Your task to perform on an android device: install app "Google Play Games" Image 0: 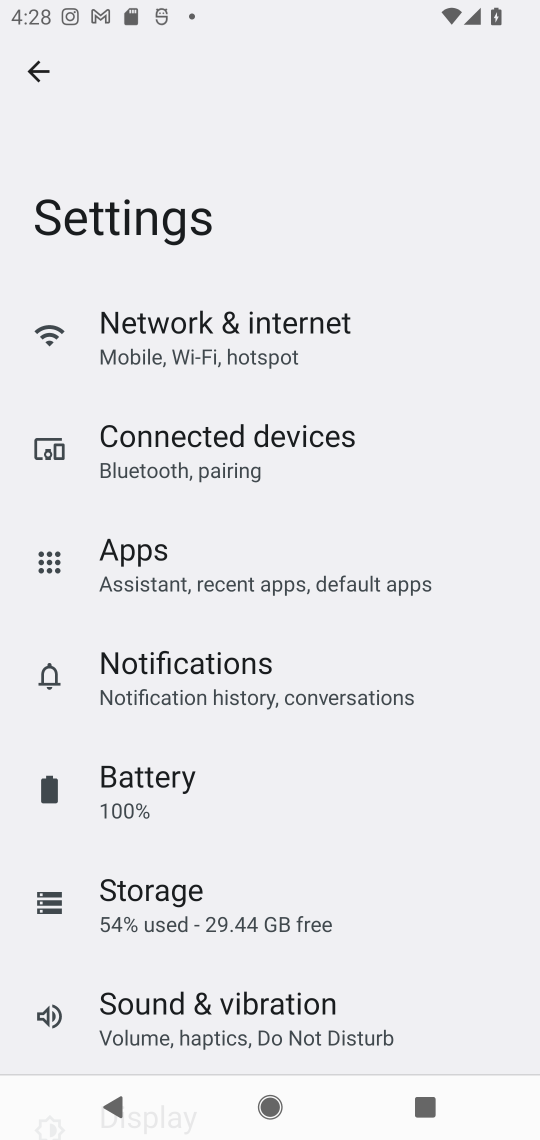
Step 0: press home button
Your task to perform on an android device: install app "Google Play Games" Image 1: 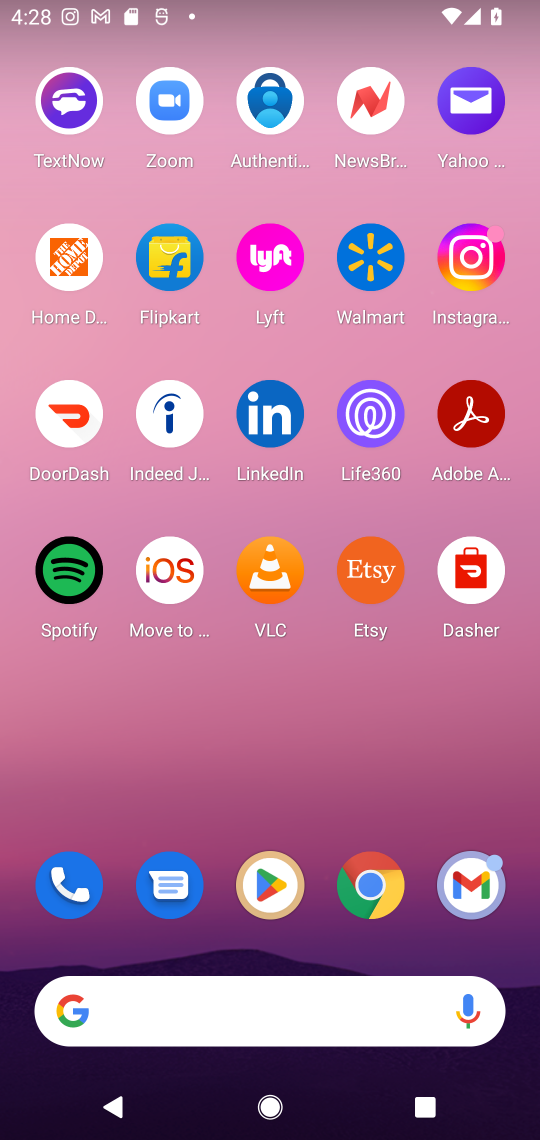
Step 1: click (265, 878)
Your task to perform on an android device: install app "Google Play Games" Image 2: 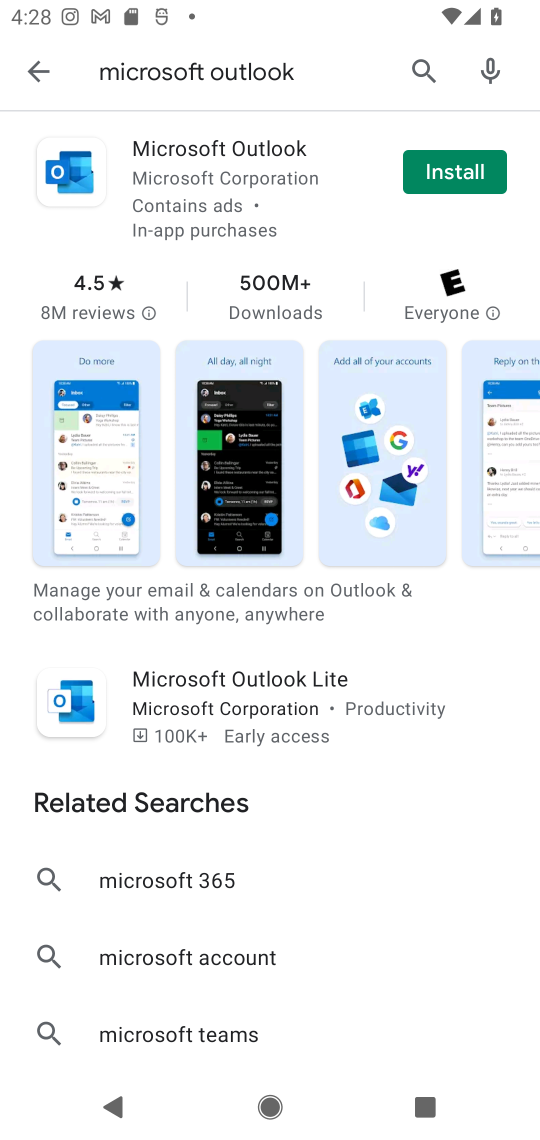
Step 2: click (424, 61)
Your task to perform on an android device: install app "Google Play Games" Image 3: 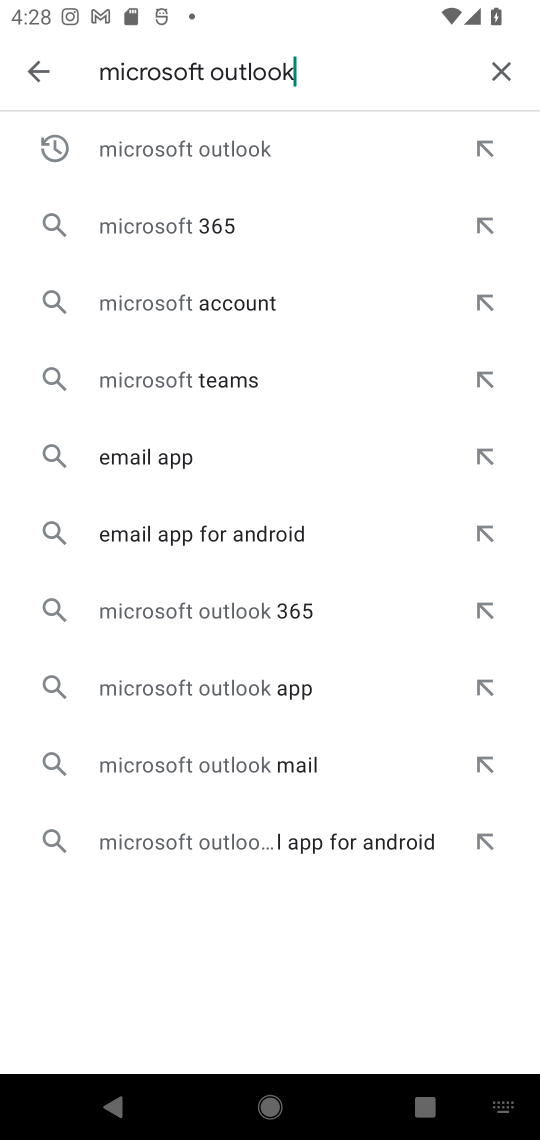
Step 3: click (499, 78)
Your task to perform on an android device: install app "Google Play Games" Image 4: 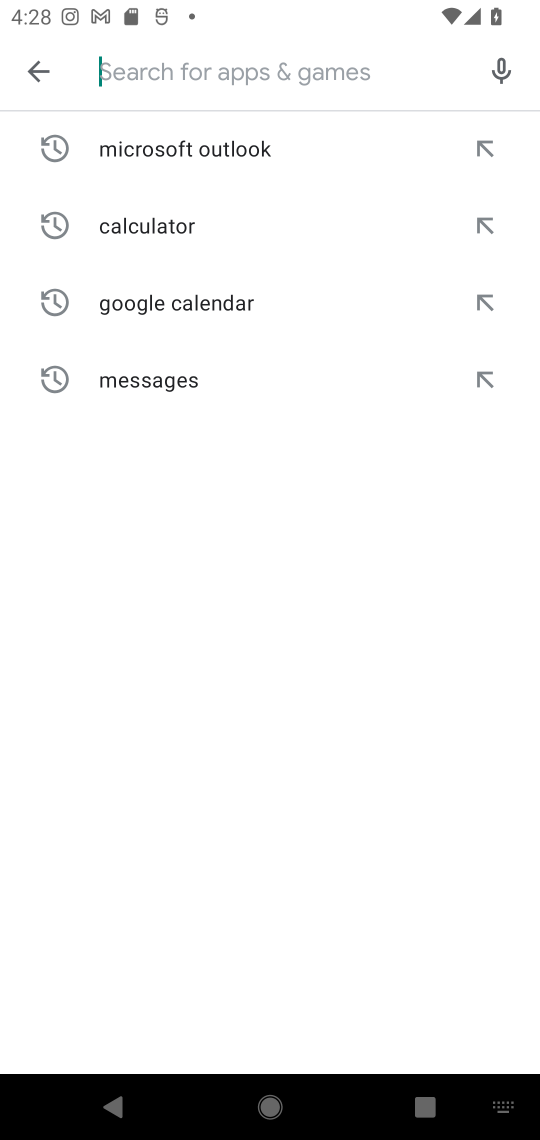
Step 4: type "Google Play Games"
Your task to perform on an android device: install app "Google Play Games" Image 5: 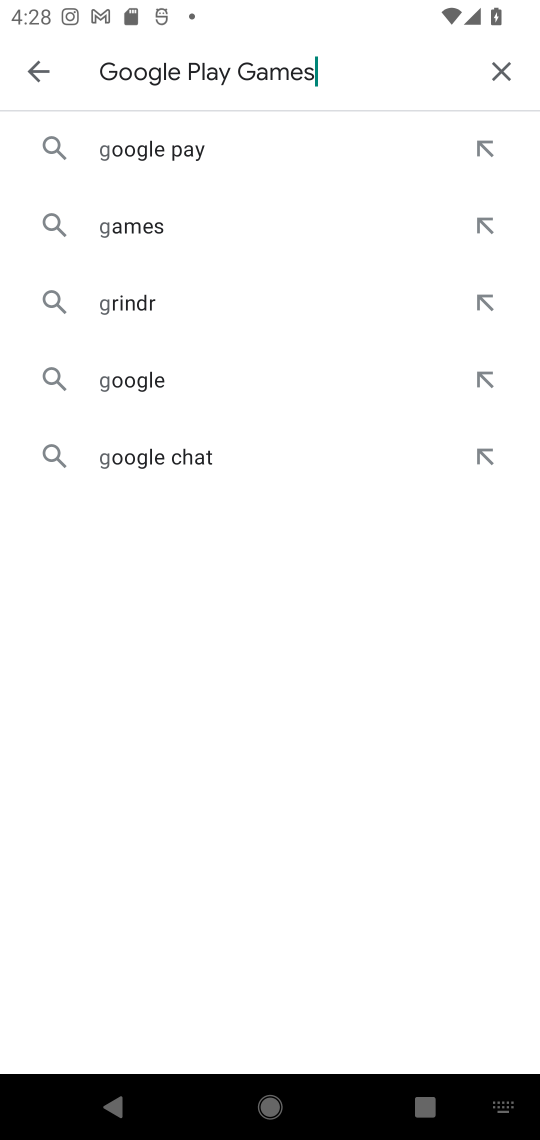
Step 5: type ""
Your task to perform on an android device: install app "Google Play Games" Image 6: 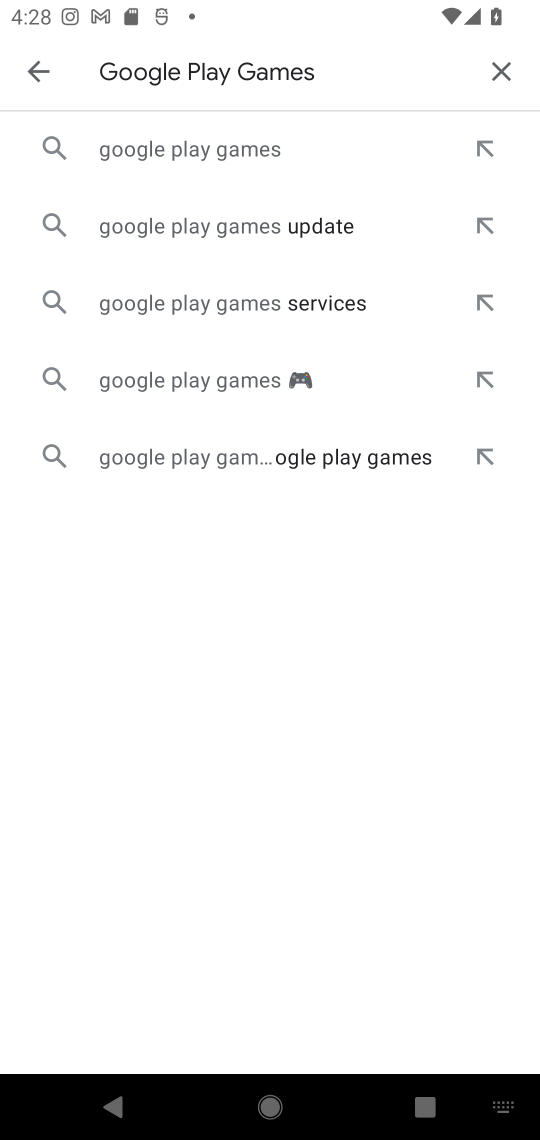
Step 6: click (298, 145)
Your task to perform on an android device: install app "Google Play Games" Image 7: 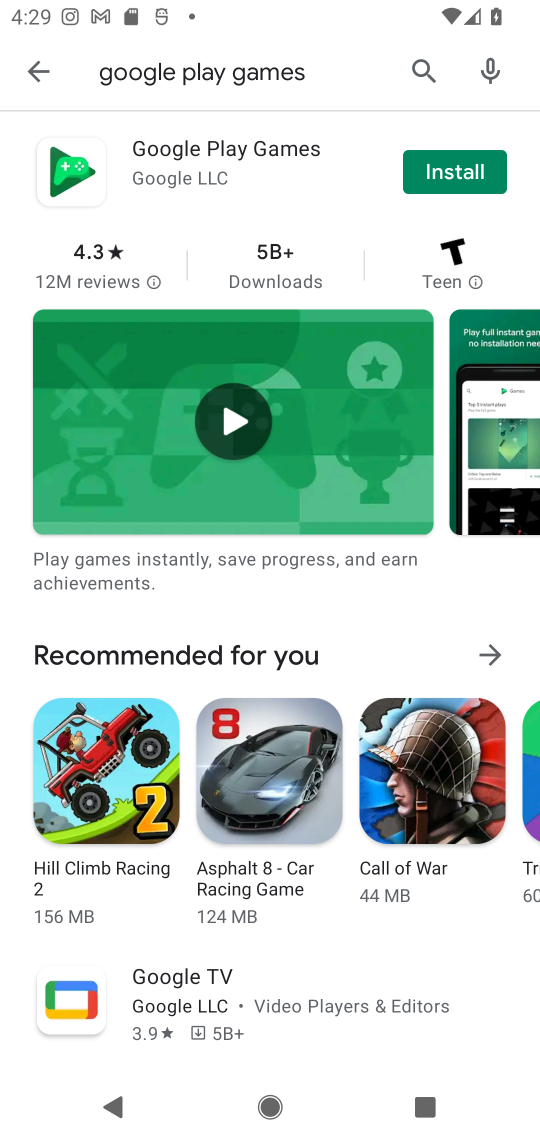
Step 7: click (456, 162)
Your task to perform on an android device: install app "Google Play Games" Image 8: 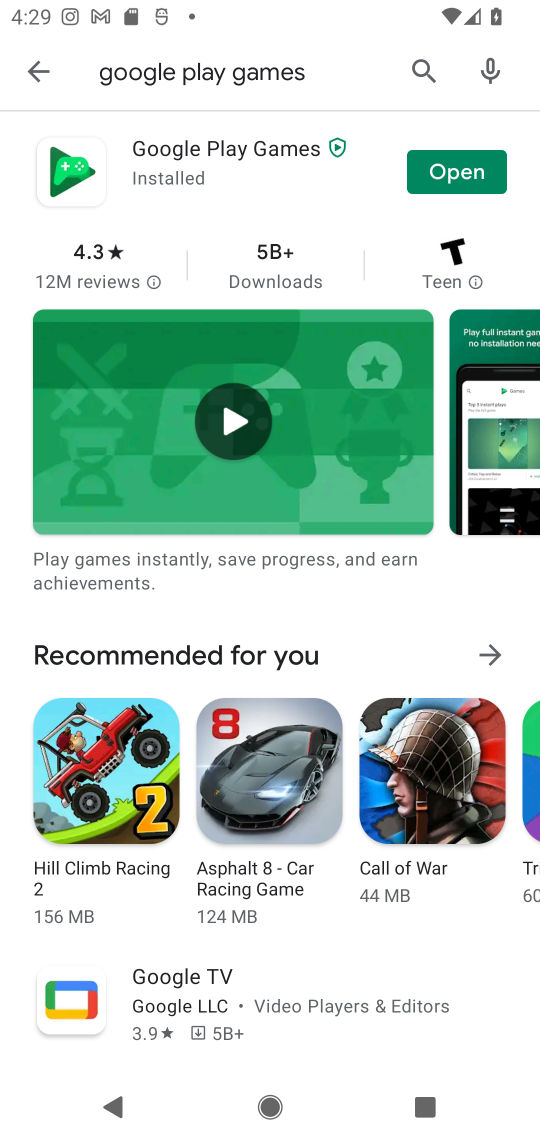
Step 8: click (464, 167)
Your task to perform on an android device: install app "Google Play Games" Image 9: 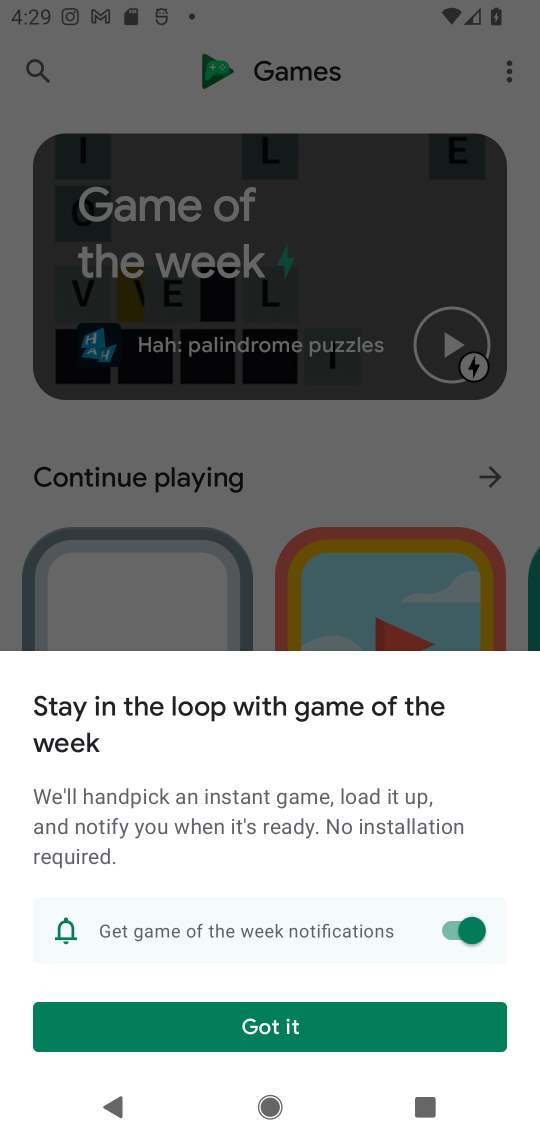
Step 9: click (281, 1025)
Your task to perform on an android device: install app "Google Play Games" Image 10: 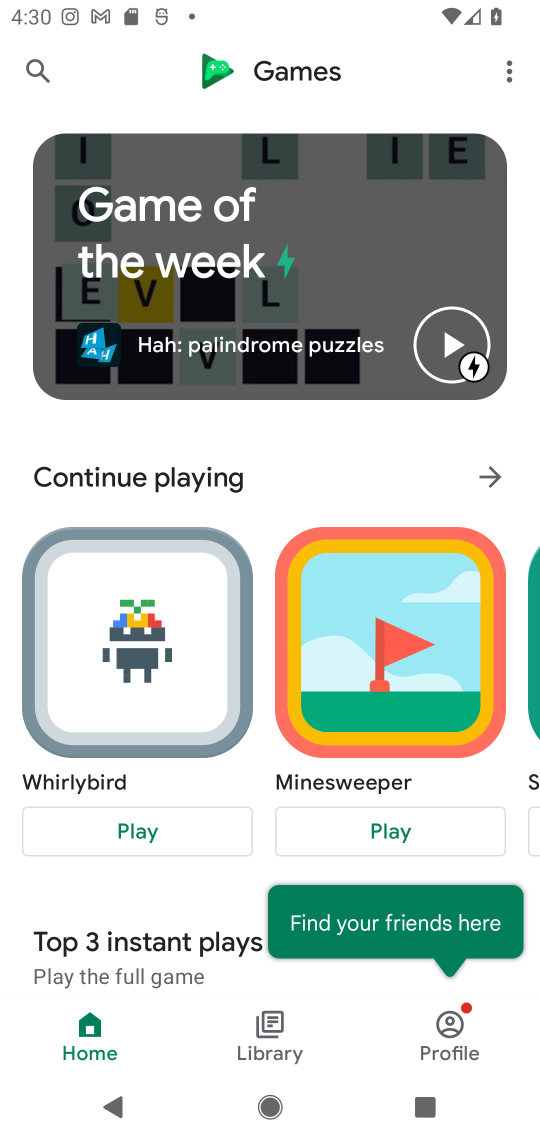
Step 10: task complete